Your task to perform on an android device: toggle airplane mode Image 0: 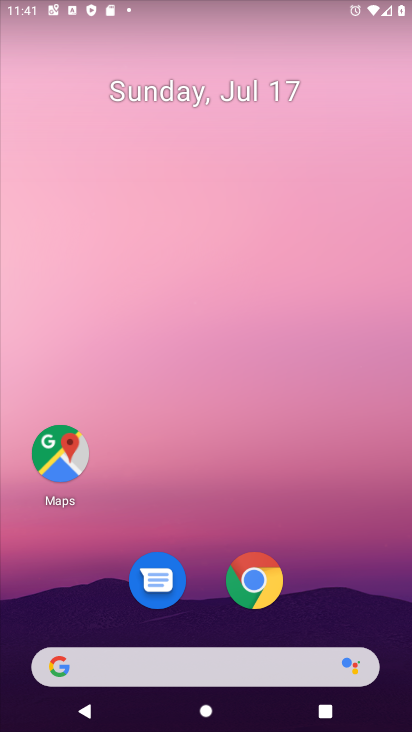
Step 0: drag from (264, 695) to (325, 228)
Your task to perform on an android device: toggle airplane mode Image 1: 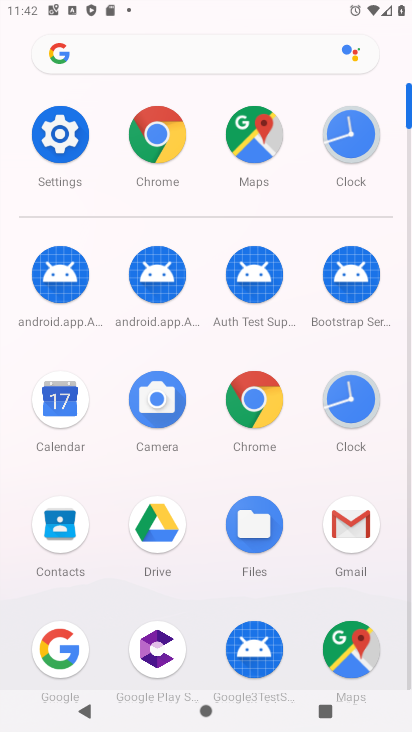
Step 1: click (67, 149)
Your task to perform on an android device: toggle airplane mode Image 2: 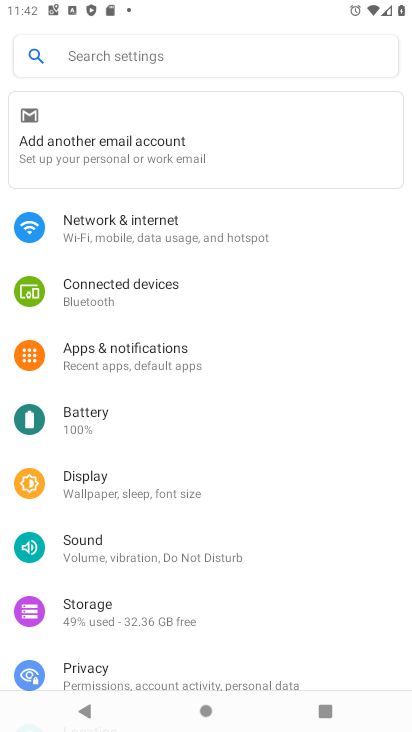
Step 2: click (129, 230)
Your task to perform on an android device: toggle airplane mode Image 3: 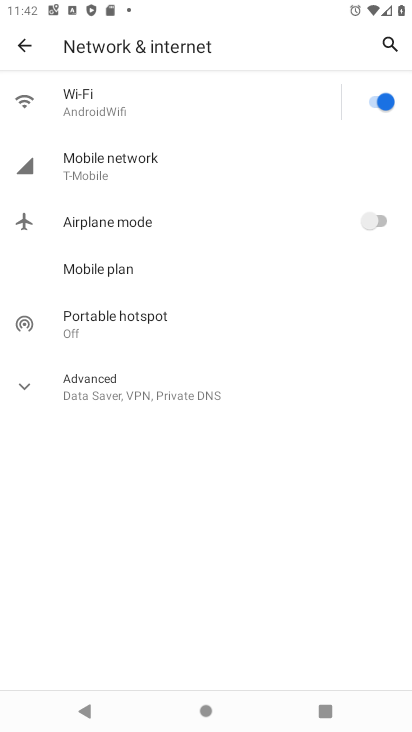
Step 3: click (285, 236)
Your task to perform on an android device: toggle airplane mode Image 4: 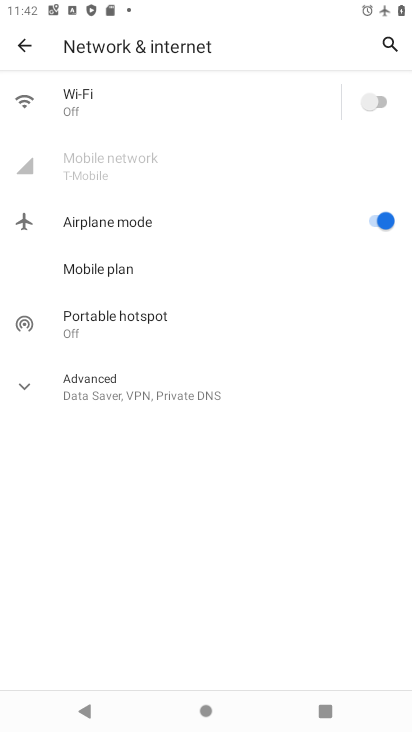
Step 4: task complete